Your task to perform on an android device: Open the calendar and show me this week's events Image 0: 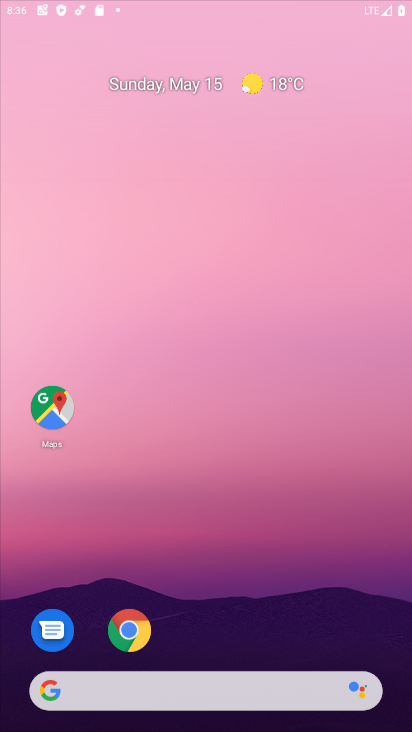
Step 0: click (271, 218)
Your task to perform on an android device: Open the calendar and show me this week's events Image 1: 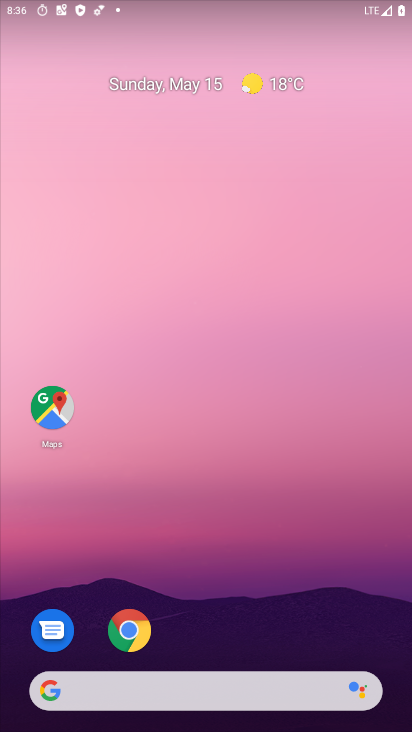
Step 1: drag from (198, 664) to (297, 29)
Your task to perform on an android device: Open the calendar and show me this week's events Image 2: 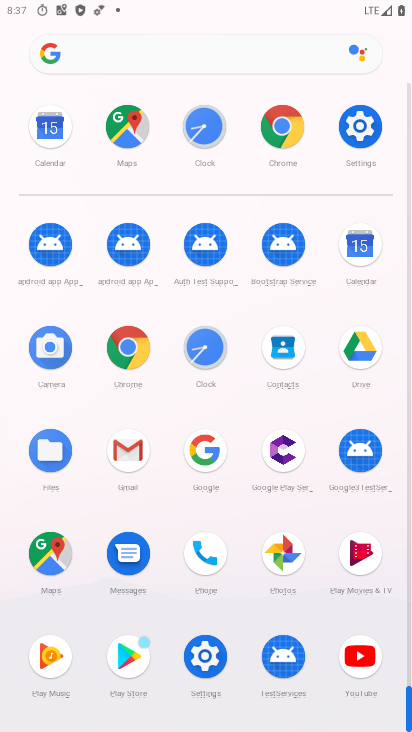
Step 2: click (357, 236)
Your task to perform on an android device: Open the calendar and show me this week's events Image 3: 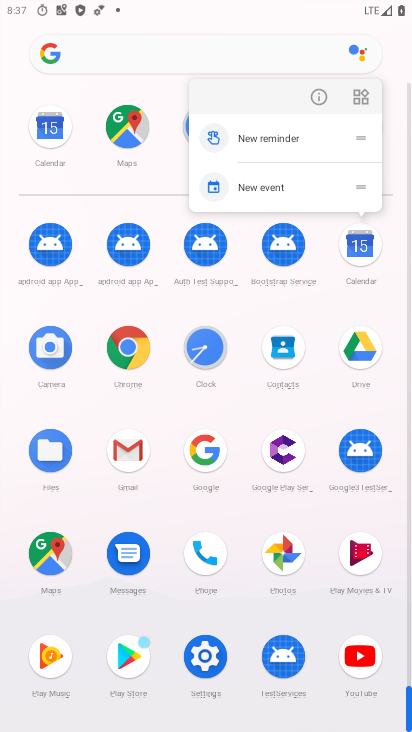
Step 3: click (323, 90)
Your task to perform on an android device: Open the calendar and show me this week's events Image 4: 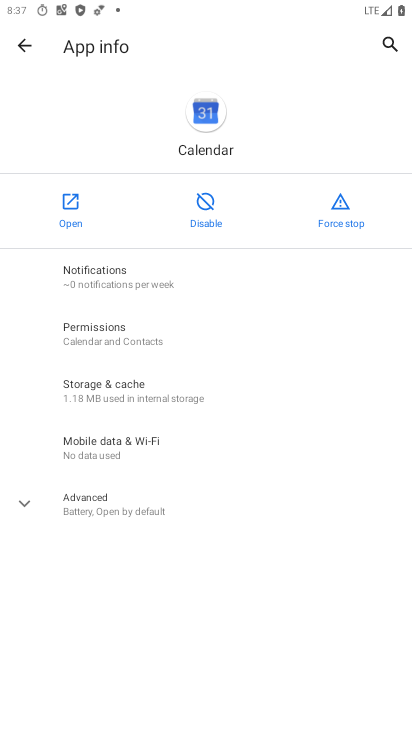
Step 4: click (67, 220)
Your task to perform on an android device: Open the calendar and show me this week's events Image 5: 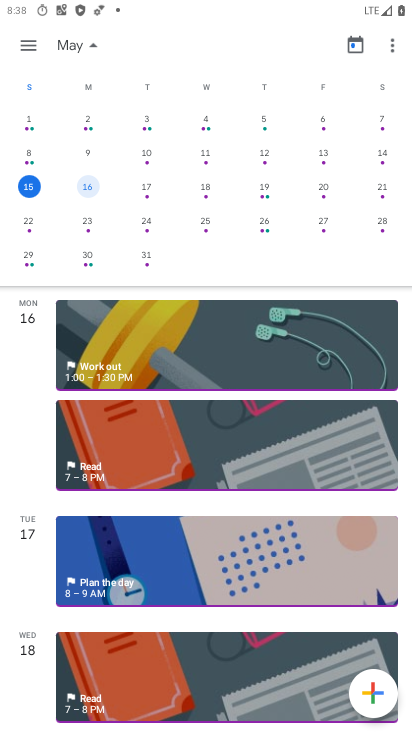
Step 5: drag from (305, 625) to (353, 274)
Your task to perform on an android device: Open the calendar and show me this week's events Image 6: 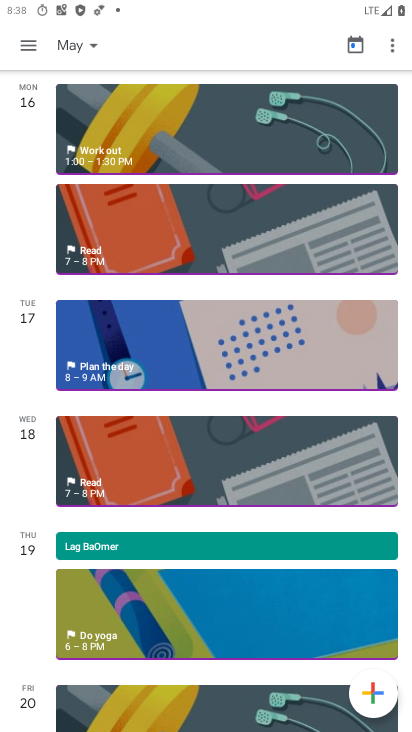
Step 6: drag from (351, 269) to (361, 560)
Your task to perform on an android device: Open the calendar and show me this week's events Image 7: 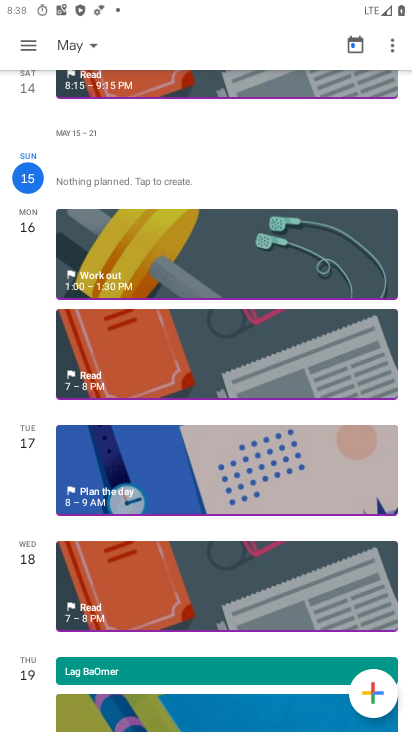
Step 7: drag from (122, 156) to (251, 610)
Your task to perform on an android device: Open the calendar and show me this week's events Image 8: 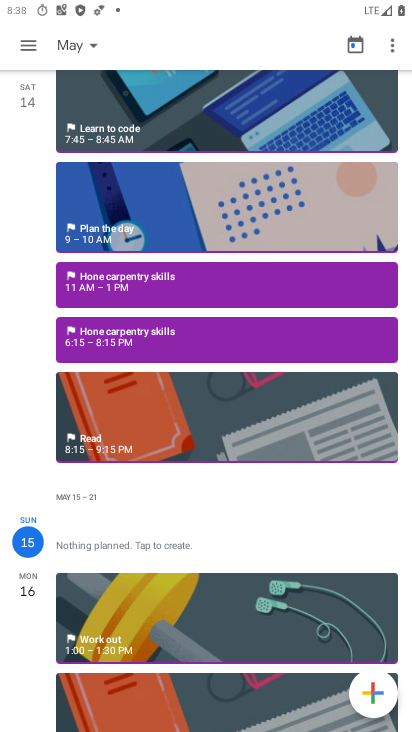
Step 8: drag from (156, 266) to (293, 648)
Your task to perform on an android device: Open the calendar and show me this week's events Image 9: 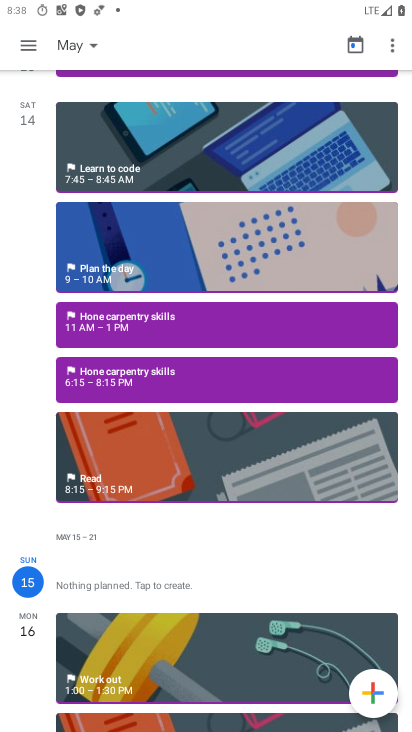
Step 9: click (81, 48)
Your task to perform on an android device: Open the calendar and show me this week's events Image 10: 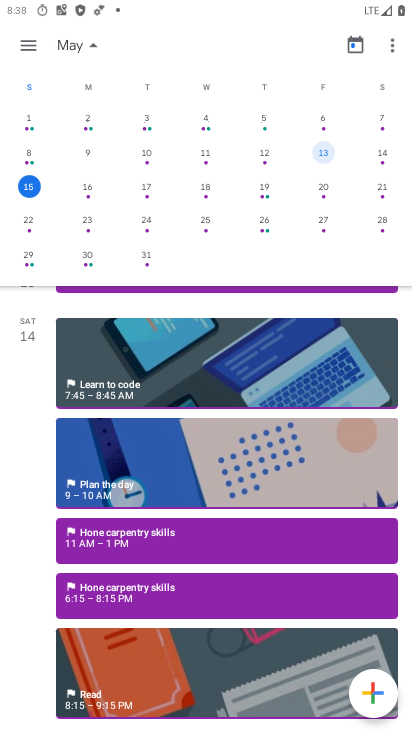
Step 10: drag from (273, 612) to (300, 230)
Your task to perform on an android device: Open the calendar and show me this week's events Image 11: 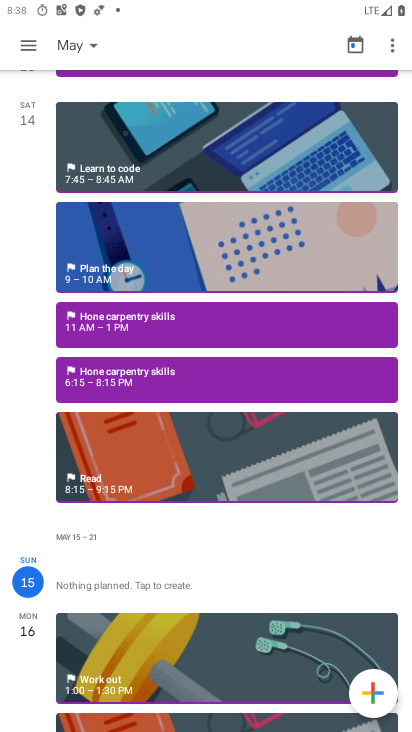
Step 11: drag from (301, 242) to (377, 714)
Your task to perform on an android device: Open the calendar and show me this week's events Image 12: 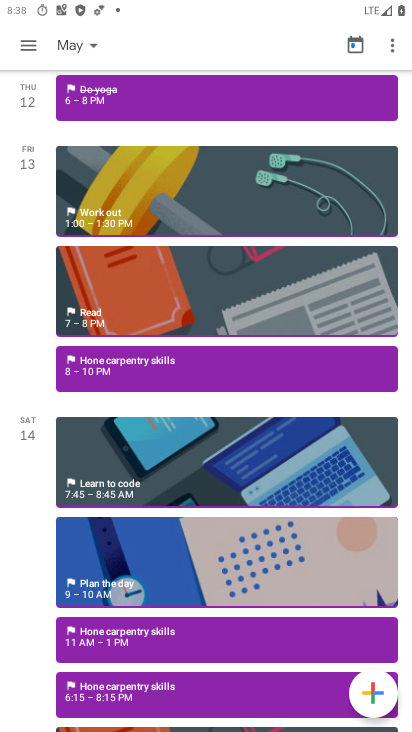
Step 12: click (77, 38)
Your task to perform on an android device: Open the calendar and show me this week's events Image 13: 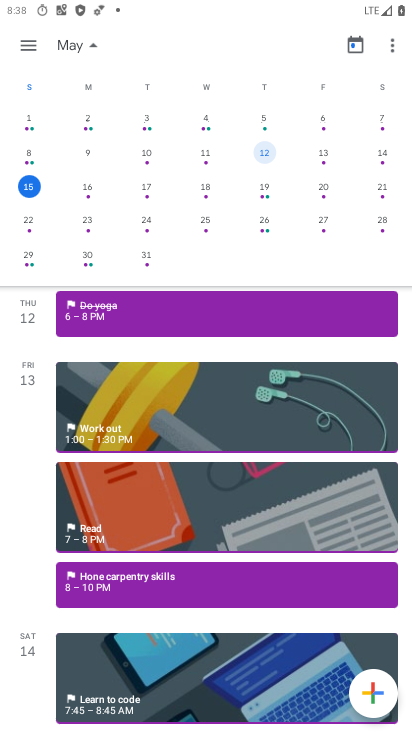
Step 13: click (89, 188)
Your task to perform on an android device: Open the calendar and show me this week's events Image 14: 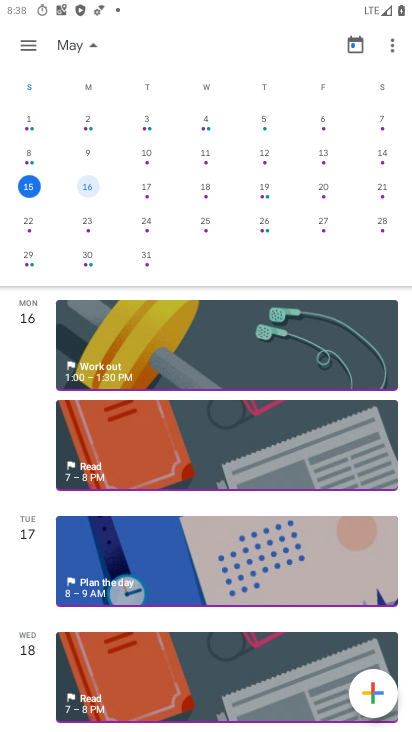
Step 14: task complete